Your task to perform on an android device: change the clock display to digital Image 0: 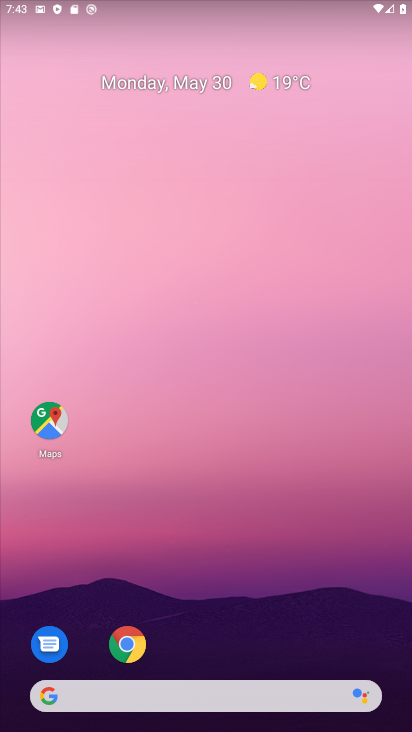
Step 0: drag from (237, 379) to (284, 71)
Your task to perform on an android device: change the clock display to digital Image 1: 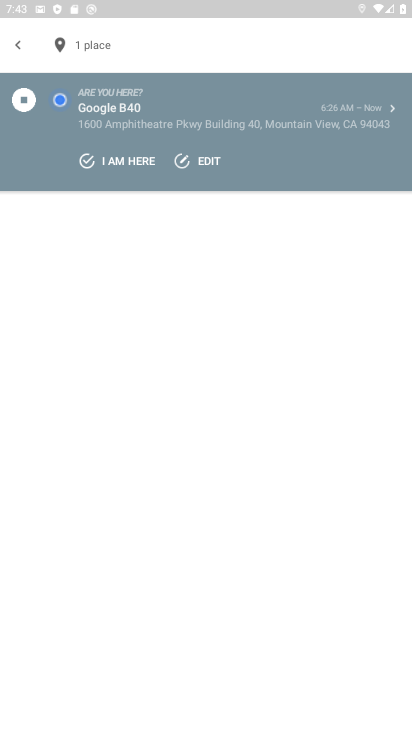
Step 1: press home button
Your task to perform on an android device: change the clock display to digital Image 2: 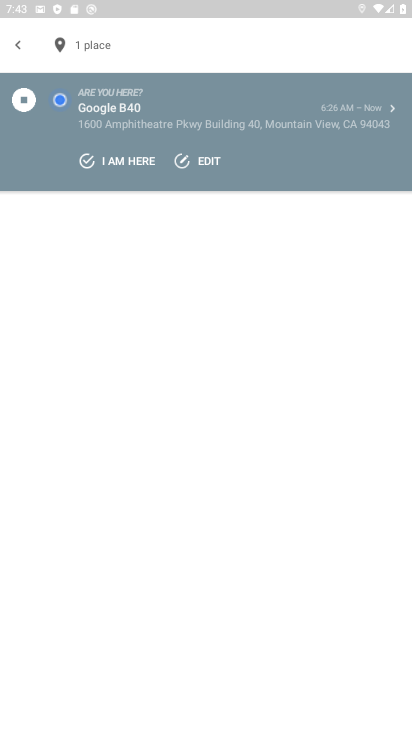
Step 2: click (234, 104)
Your task to perform on an android device: change the clock display to digital Image 3: 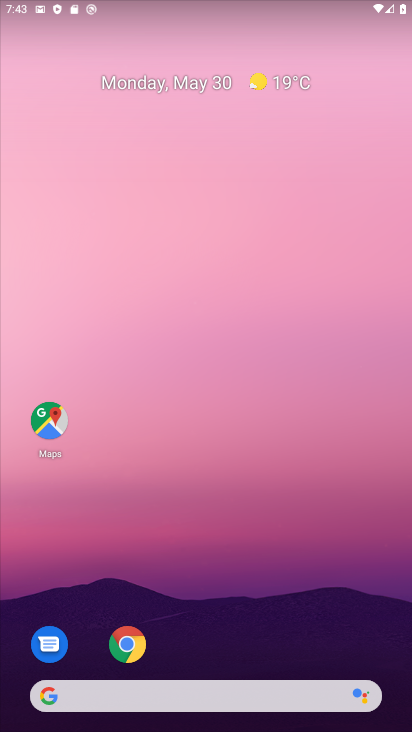
Step 3: drag from (196, 632) to (206, 60)
Your task to perform on an android device: change the clock display to digital Image 4: 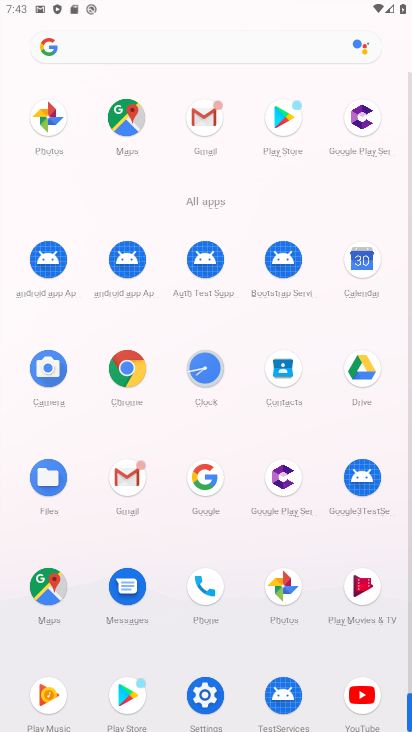
Step 4: click (204, 371)
Your task to perform on an android device: change the clock display to digital Image 5: 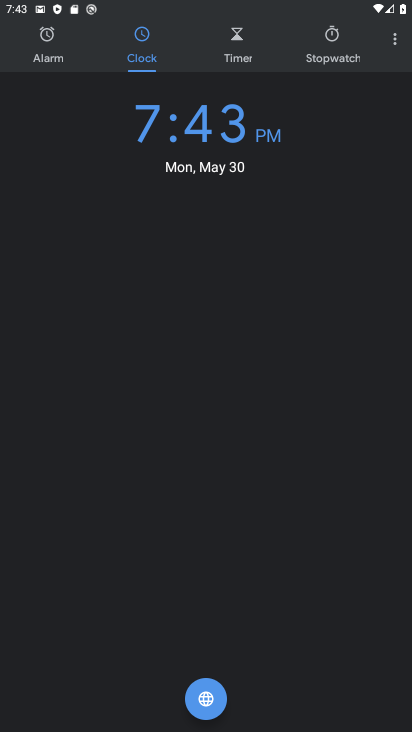
Step 5: drag from (402, 35) to (314, 78)
Your task to perform on an android device: change the clock display to digital Image 6: 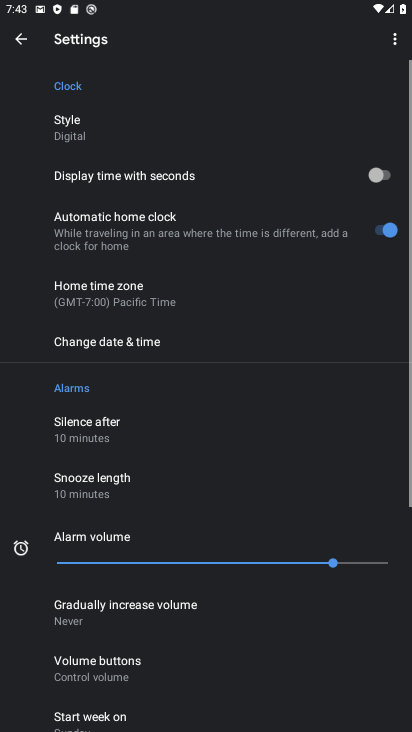
Step 6: click (118, 141)
Your task to perform on an android device: change the clock display to digital Image 7: 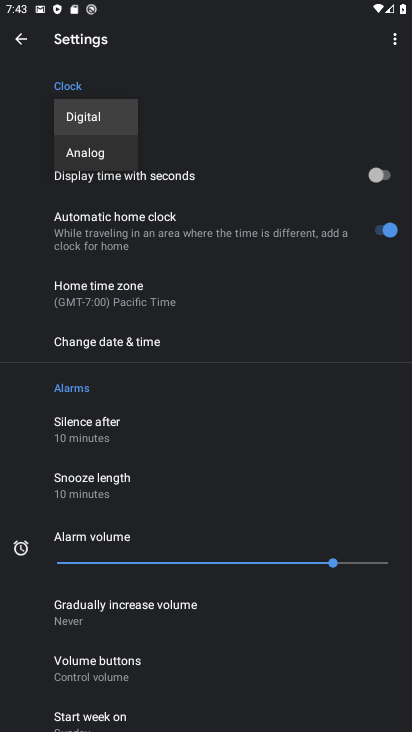
Step 7: task complete